Your task to perform on an android device: Open Youtube and go to "Your channel" Image 0: 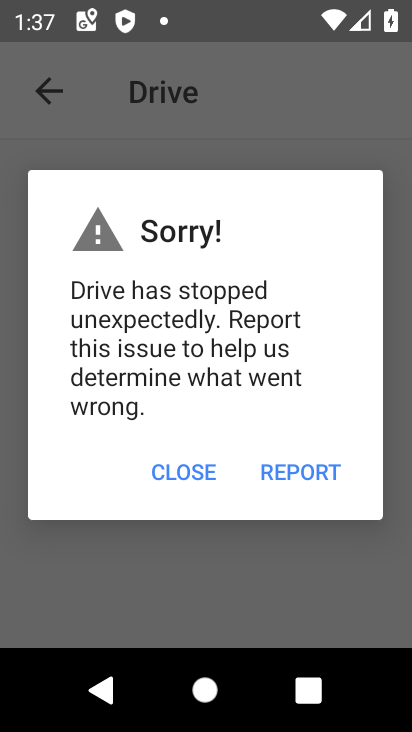
Step 0: click (190, 469)
Your task to perform on an android device: Open Youtube and go to "Your channel" Image 1: 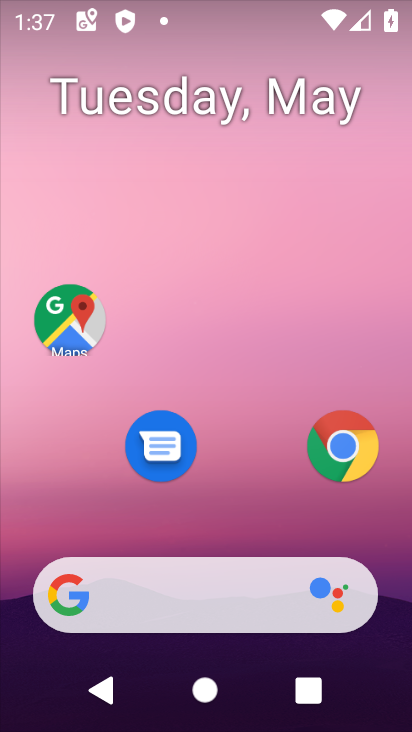
Step 1: press home button
Your task to perform on an android device: Open Youtube and go to "Your channel" Image 2: 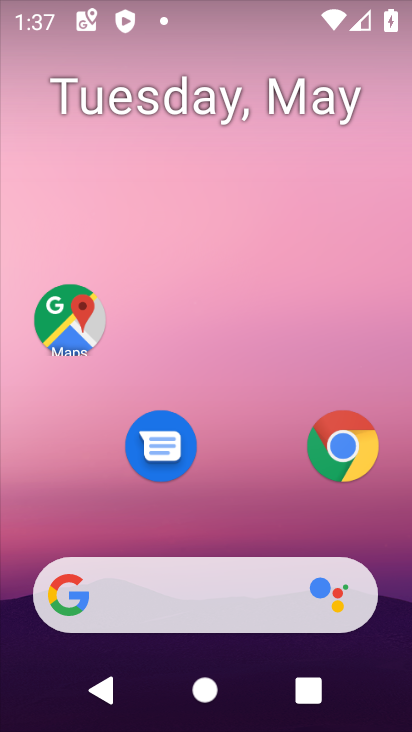
Step 2: drag from (248, 542) to (234, 12)
Your task to perform on an android device: Open Youtube and go to "Your channel" Image 3: 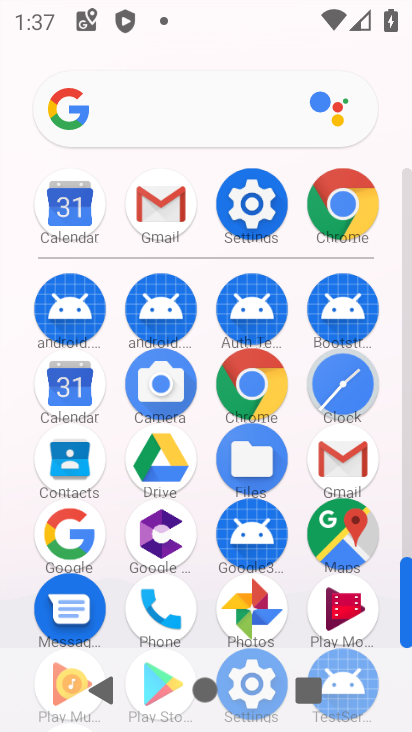
Step 3: drag from (194, 576) to (154, 21)
Your task to perform on an android device: Open Youtube and go to "Your channel" Image 4: 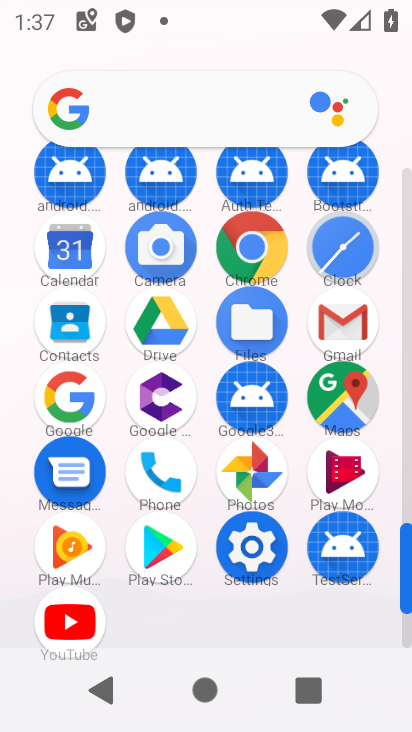
Step 4: click (76, 618)
Your task to perform on an android device: Open Youtube and go to "Your channel" Image 5: 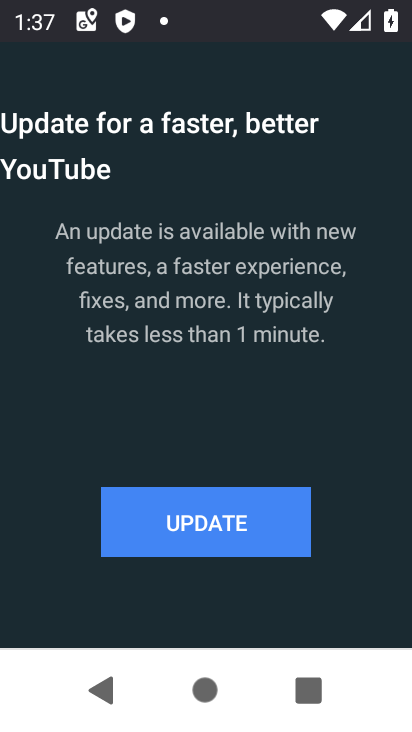
Step 5: click (143, 555)
Your task to perform on an android device: Open Youtube and go to "Your channel" Image 6: 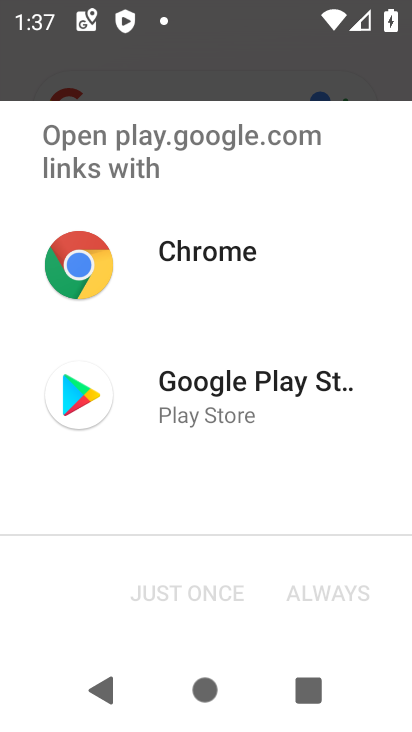
Step 6: click (143, 420)
Your task to perform on an android device: Open Youtube and go to "Your channel" Image 7: 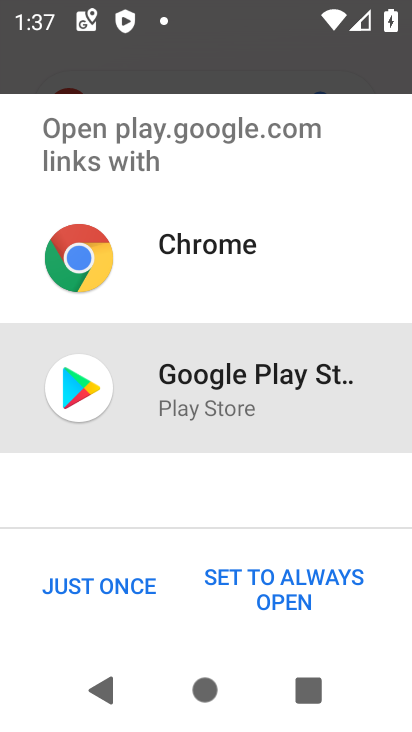
Step 7: click (122, 585)
Your task to perform on an android device: Open Youtube and go to "Your channel" Image 8: 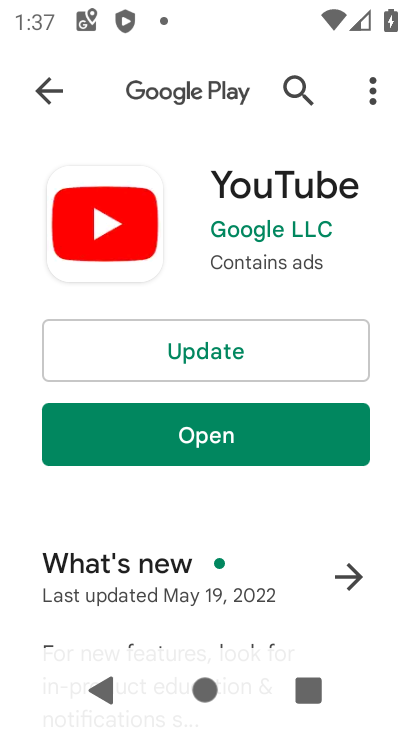
Step 8: click (182, 348)
Your task to perform on an android device: Open Youtube and go to "Your channel" Image 9: 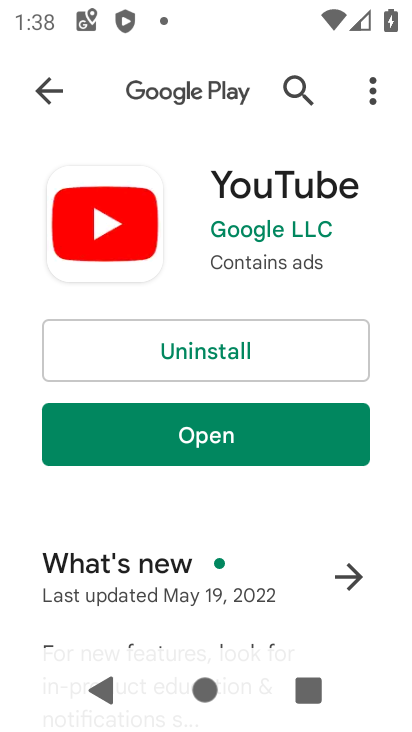
Step 9: click (105, 413)
Your task to perform on an android device: Open Youtube and go to "Your channel" Image 10: 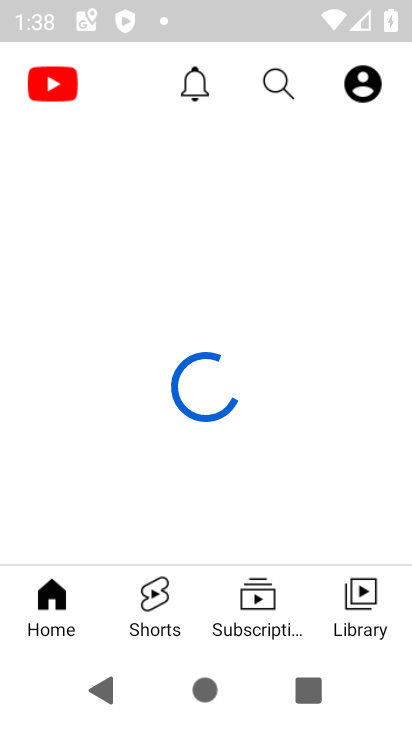
Step 10: click (365, 607)
Your task to perform on an android device: Open Youtube and go to "Your channel" Image 11: 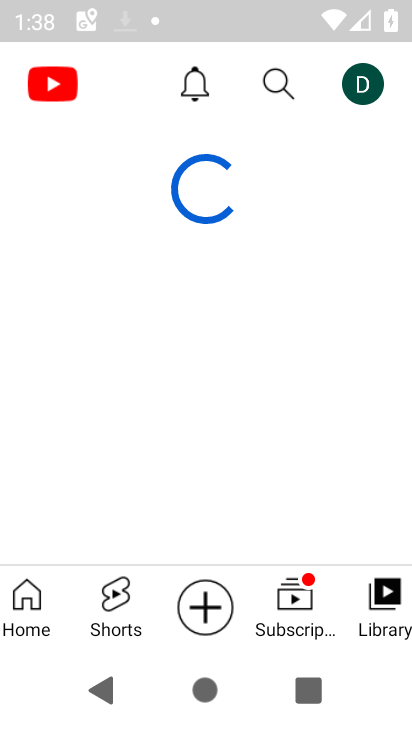
Step 11: click (377, 83)
Your task to perform on an android device: Open Youtube and go to "Your channel" Image 12: 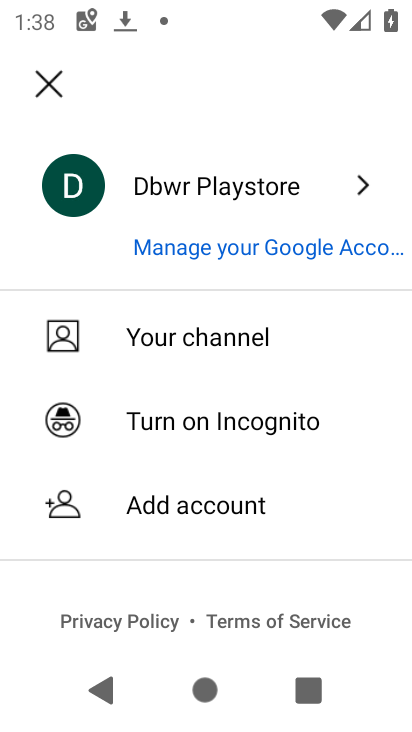
Step 12: click (190, 349)
Your task to perform on an android device: Open Youtube and go to "Your channel" Image 13: 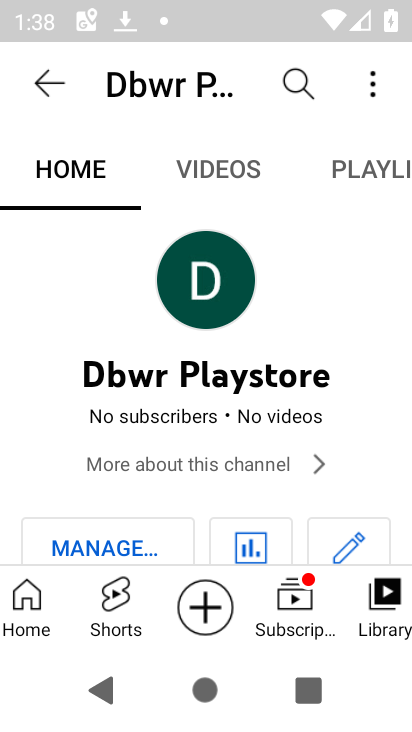
Step 13: task complete